Your task to perform on an android device: set the timer Image 0: 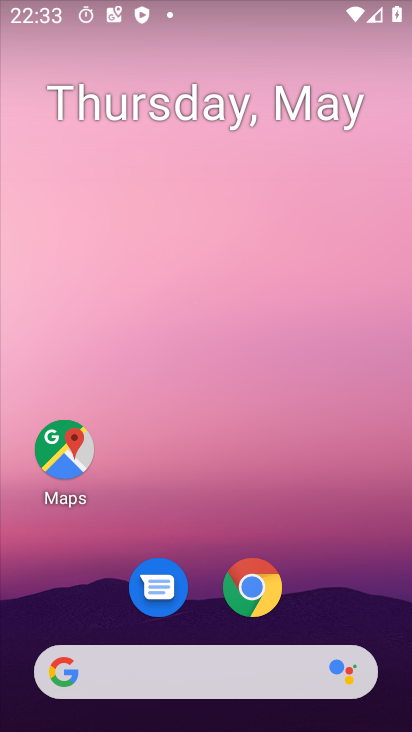
Step 0: drag from (364, 642) to (358, 16)
Your task to perform on an android device: set the timer Image 1: 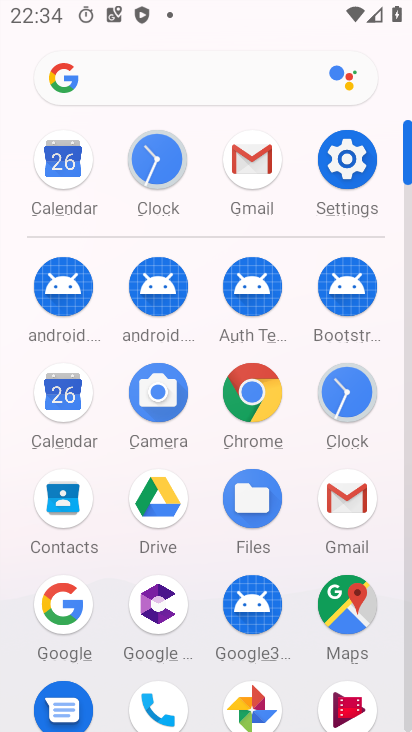
Step 1: click (150, 165)
Your task to perform on an android device: set the timer Image 2: 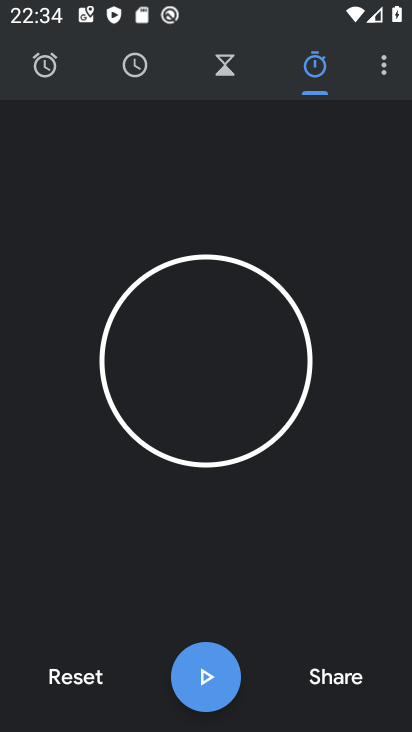
Step 2: click (224, 66)
Your task to perform on an android device: set the timer Image 3: 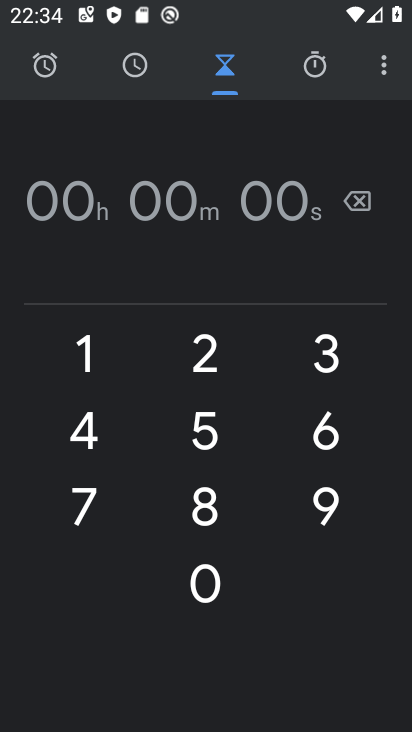
Step 3: click (92, 435)
Your task to perform on an android device: set the timer Image 4: 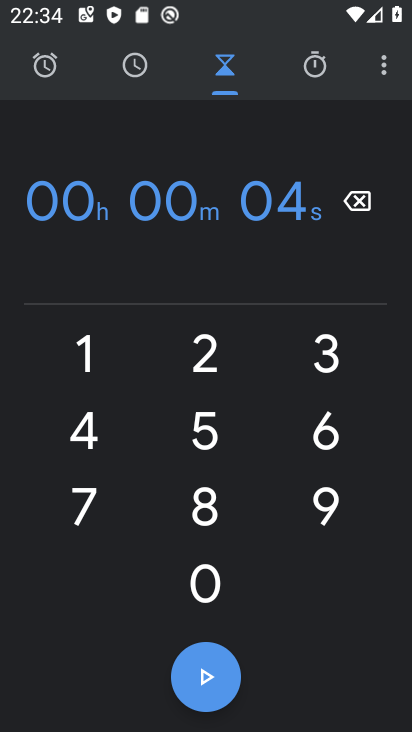
Step 4: click (184, 431)
Your task to perform on an android device: set the timer Image 5: 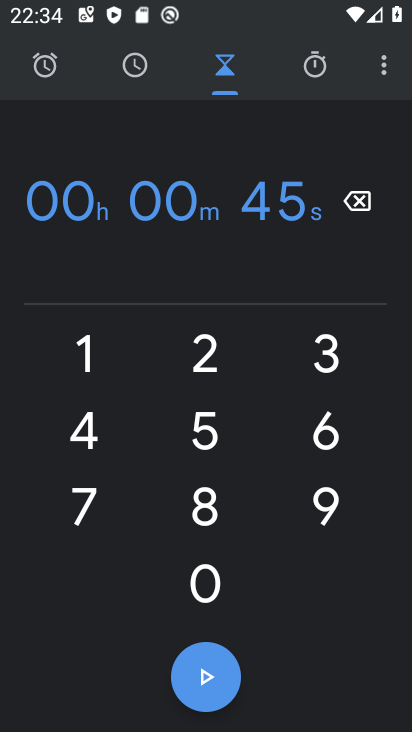
Step 5: click (206, 661)
Your task to perform on an android device: set the timer Image 6: 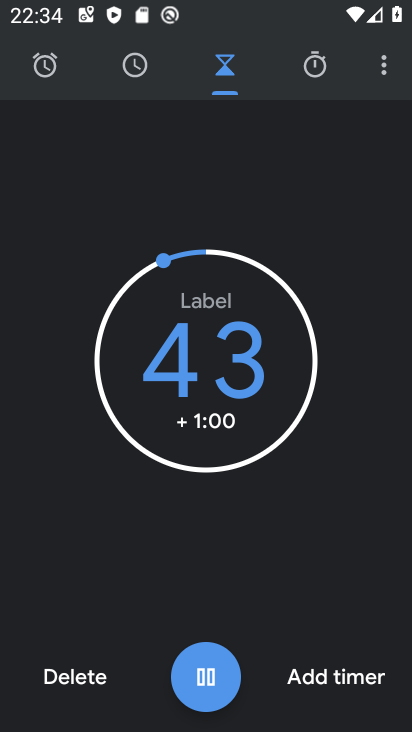
Step 6: task complete